Your task to perform on an android device: turn vacation reply on in the gmail app Image 0: 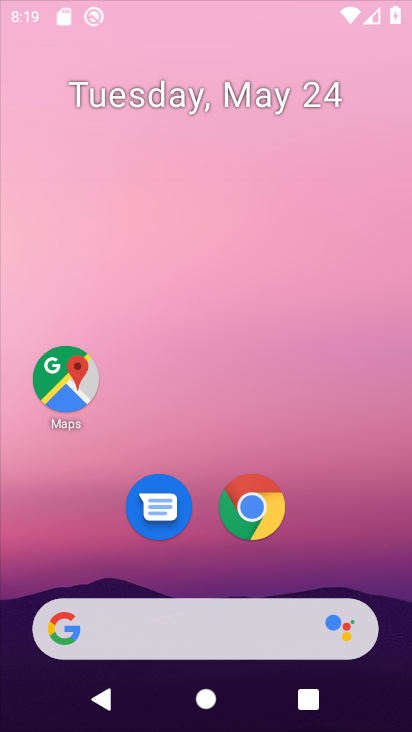
Step 0: click (227, 74)
Your task to perform on an android device: turn vacation reply on in the gmail app Image 1: 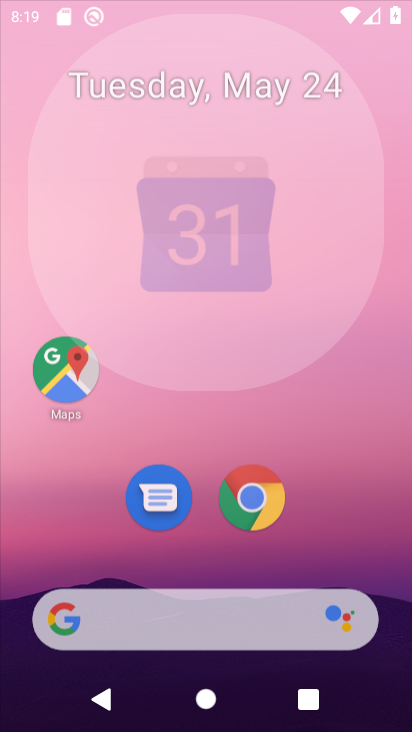
Step 1: drag from (223, 565) to (244, 90)
Your task to perform on an android device: turn vacation reply on in the gmail app Image 2: 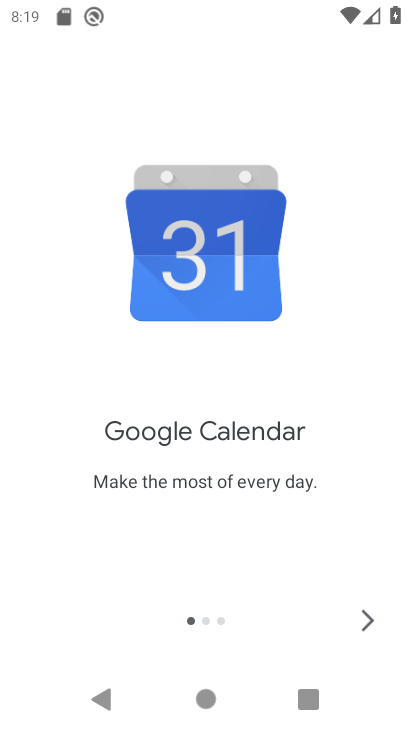
Step 2: press home button
Your task to perform on an android device: turn vacation reply on in the gmail app Image 3: 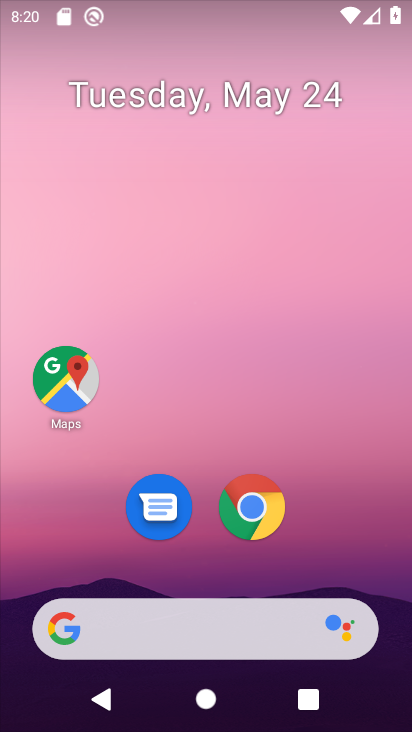
Step 3: drag from (174, 595) to (240, 107)
Your task to perform on an android device: turn vacation reply on in the gmail app Image 4: 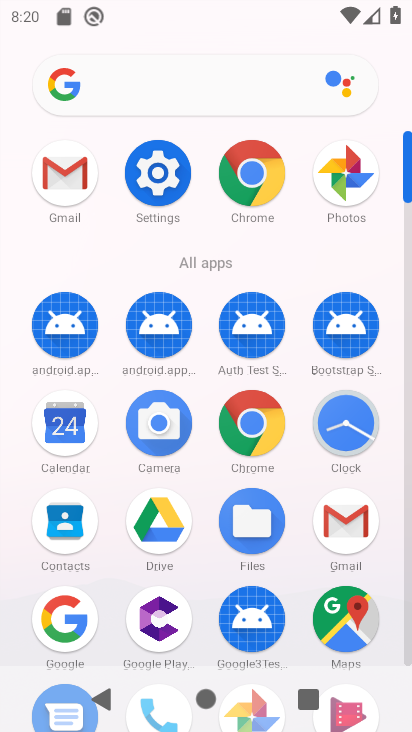
Step 4: click (350, 515)
Your task to perform on an android device: turn vacation reply on in the gmail app Image 5: 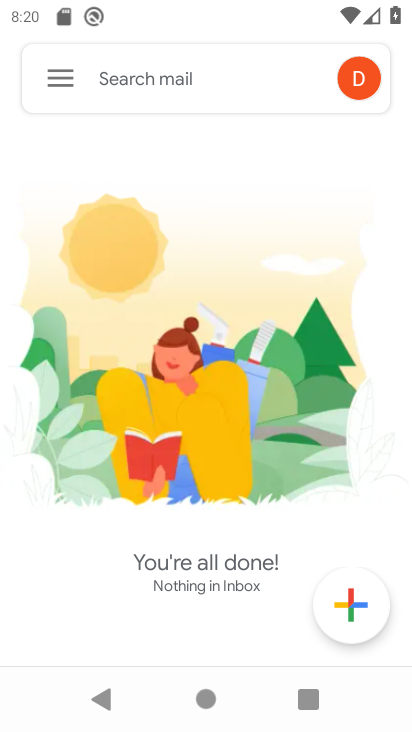
Step 5: click (35, 86)
Your task to perform on an android device: turn vacation reply on in the gmail app Image 6: 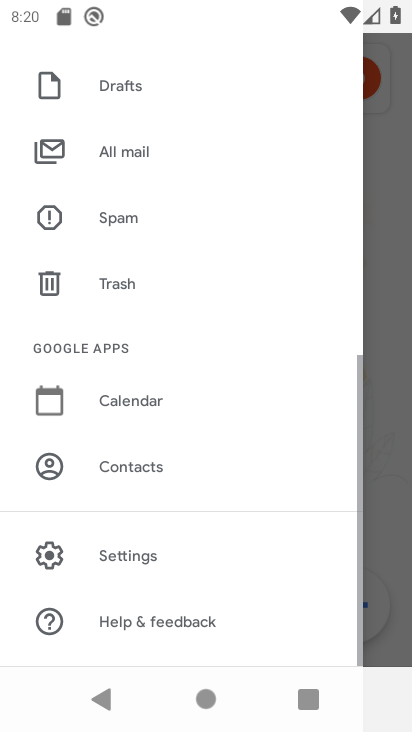
Step 6: drag from (212, 567) to (237, 85)
Your task to perform on an android device: turn vacation reply on in the gmail app Image 7: 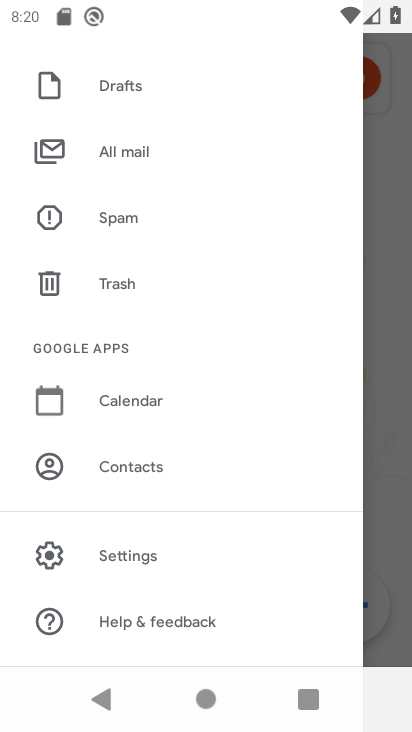
Step 7: click (148, 551)
Your task to perform on an android device: turn vacation reply on in the gmail app Image 8: 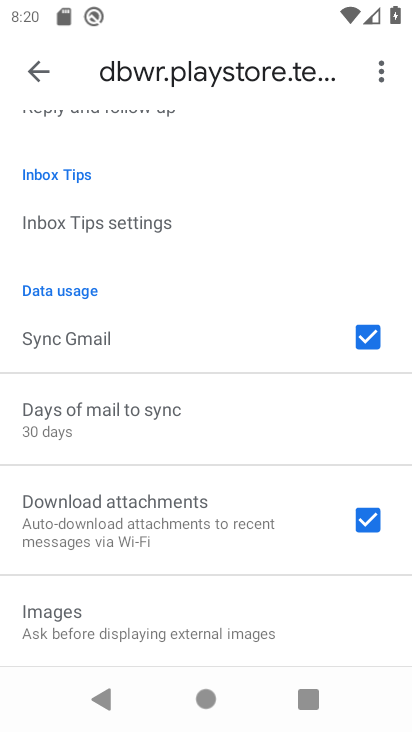
Step 8: drag from (109, 162) to (232, 666)
Your task to perform on an android device: turn vacation reply on in the gmail app Image 9: 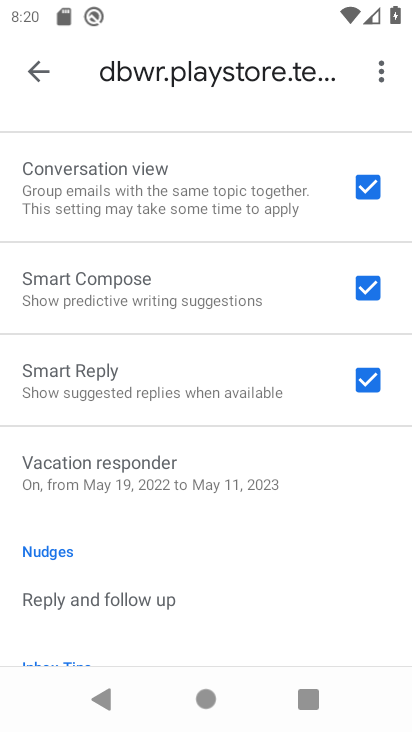
Step 9: click (231, 468)
Your task to perform on an android device: turn vacation reply on in the gmail app Image 10: 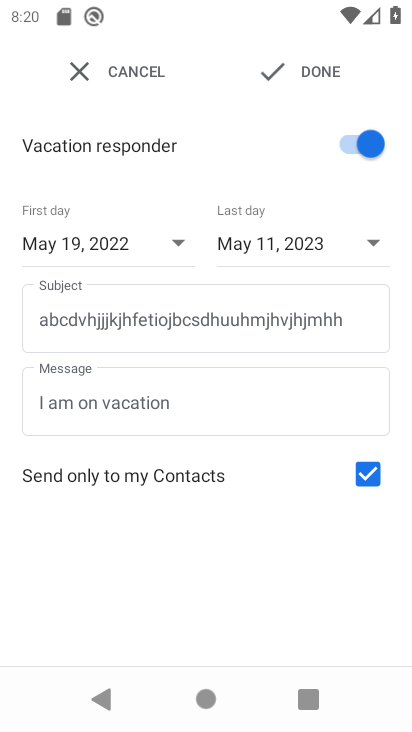
Step 10: click (292, 73)
Your task to perform on an android device: turn vacation reply on in the gmail app Image 11: 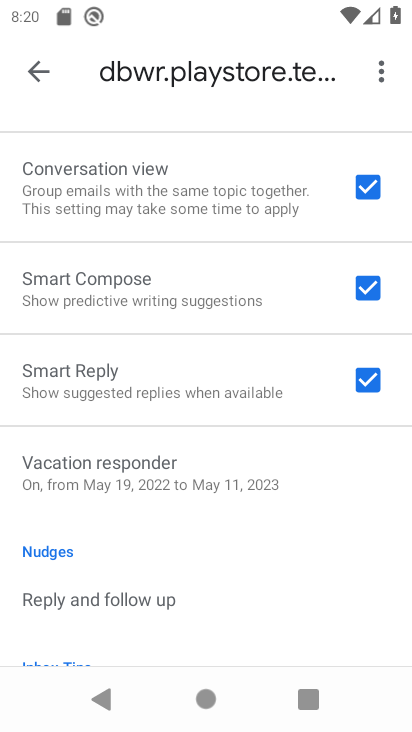
Step 11: drag from (262, 494) to (341, 35)
Your task to perform on an android device: turn vacation reply on in the gmail app Image 12: 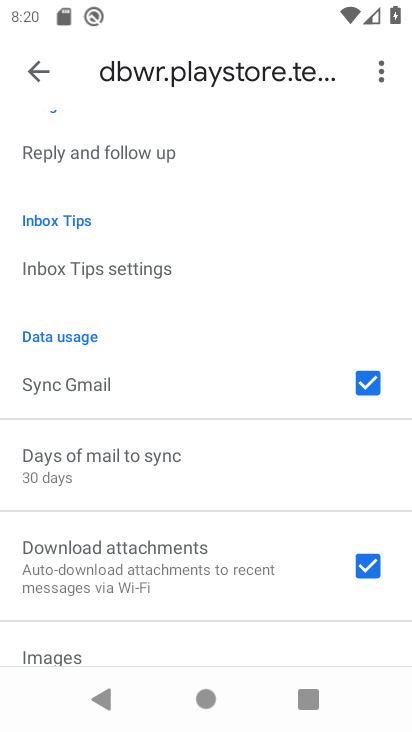
Step 12: drag from (307, 552) to (331, 229)
Your task to perform on an android device: turn vacation reply on in the gmail app Image 13: 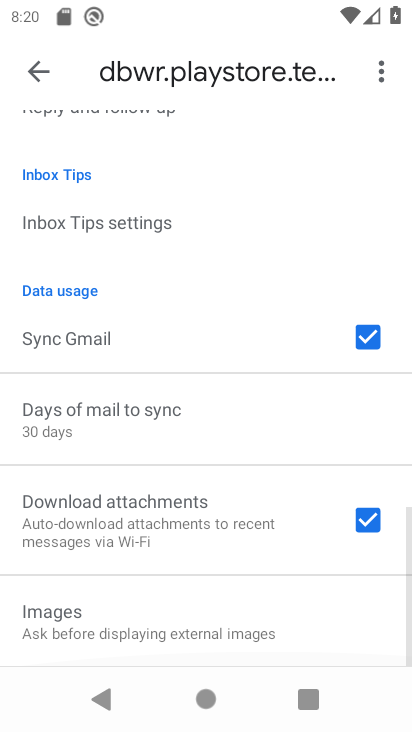
Step 13: drag from (327, 166) to (322, 566)
Your task to perform on an android device: turn vacation reply on in the gmail app Image 14: 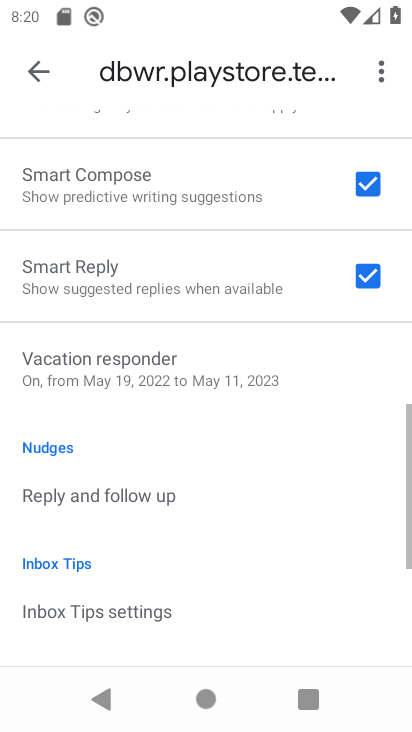
Step 14: drag from (322, 557) to (343, 167)
Your task to perform on an android device: turn vacation reply on in the gmail app Image 15: 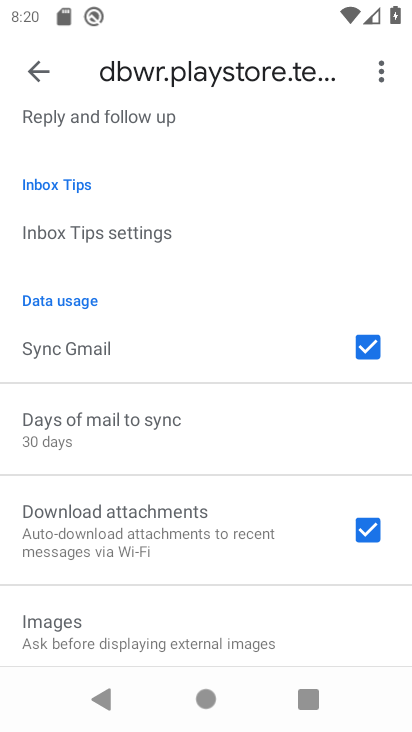
Step 15: drag from (238, 503) to (274, 257)
Your task to perform on an android device: turn vacation reply on in the gmail app Image 16: 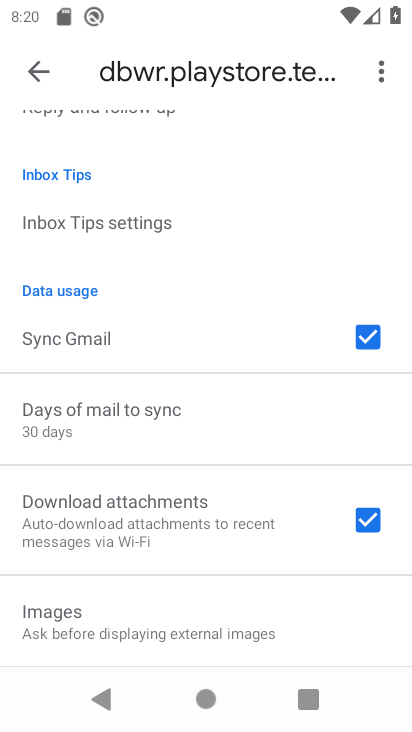
Step 16: drag from (272, 521) to (277, 137)
Your task to perform on an android device: turn vacation reply on in the gmail app Image 17: 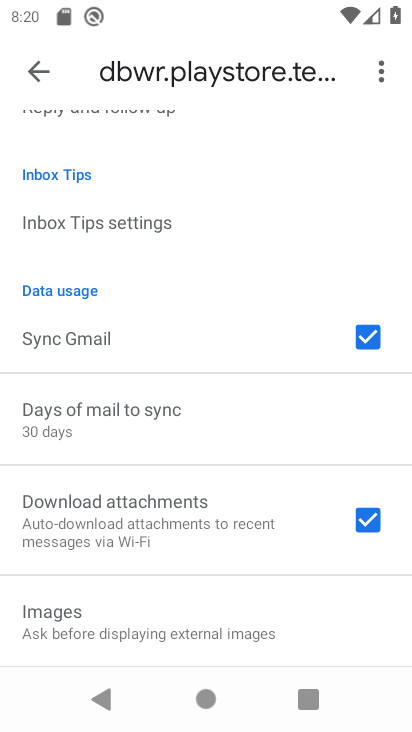
Step 17: drag from (233, 227) to (224, 641)
Your task to perform on an android device: turn vacation reply on in the gmail app Image 18: 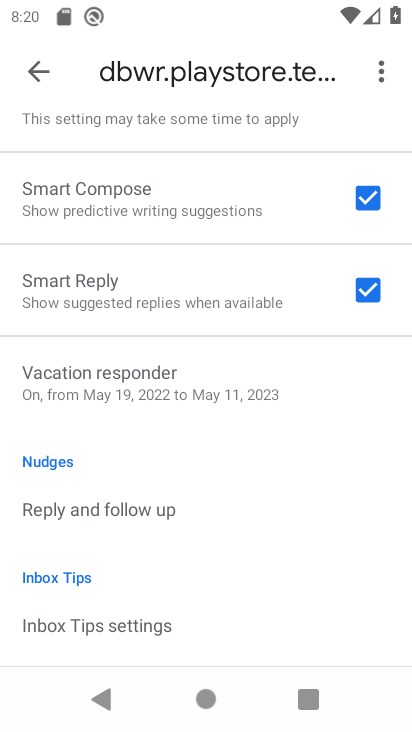
Step 18: drag from (237, 294) to (324, 638)
Your task to perform on an android device: turn vacation reply on in the gmail app Image 19: 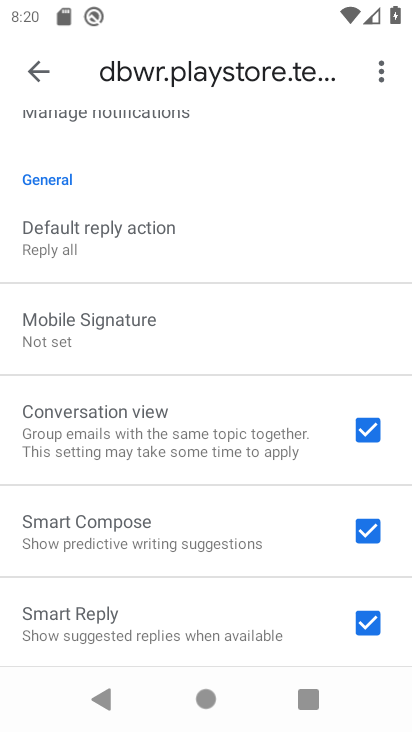
Step 19: drag from (244, 569) to (246, 212)
Your task to perform on an android device: turn vacation reply on in the gmail app Image 20: 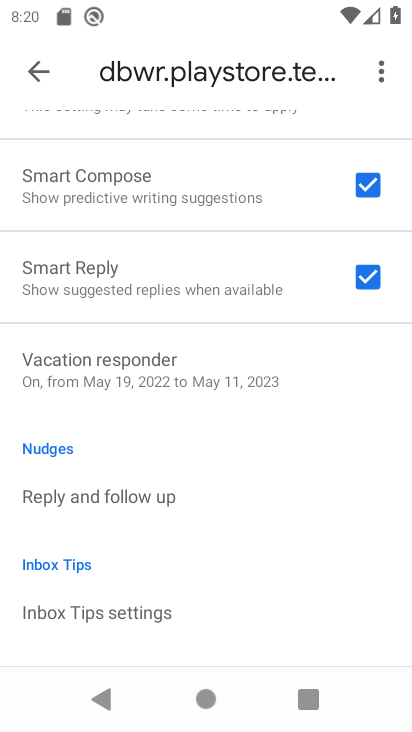
Step 20: drag from (184, 267) to (410, 728)
Your task to perform on an android device: turn vacation reply on in the gmail app Image 21: 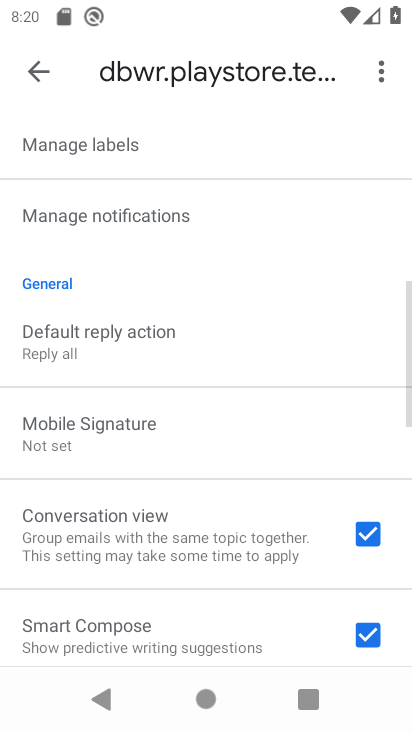
Step 21: drag from (301, 601) to (291, 204)
Your task to perform on an android device: turn vacation reply on in the gmail app Image 22: 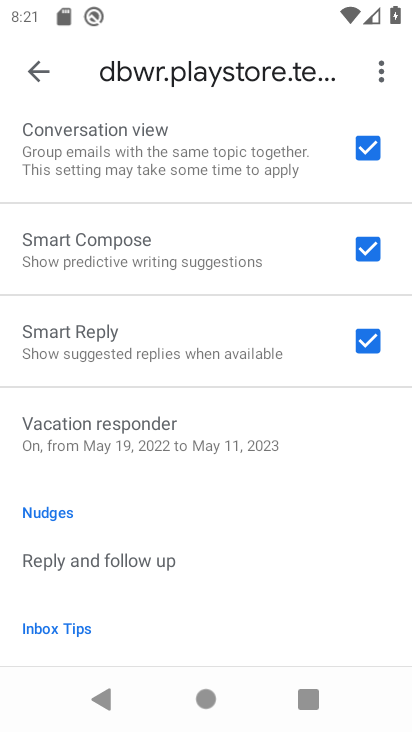
Step 22: drag from (225, 580) to (268, 289)
Your task to perform on an android device: turn vacation reply on in the gmail app Image 23: 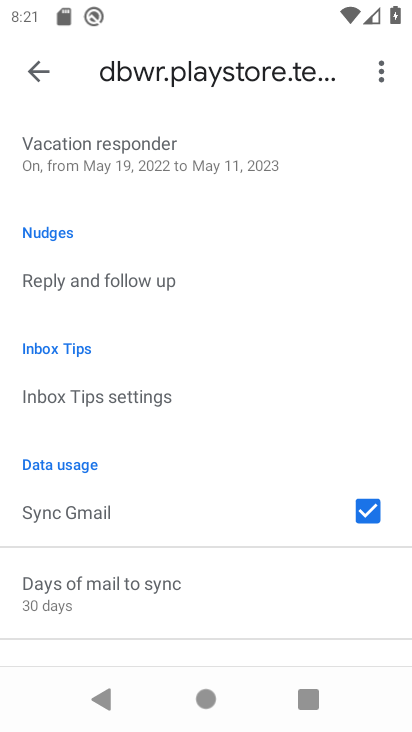
Step 23: click (132, 174)
Your task to perform on an android device: turn vacation reply on in the gmail app Image 24: 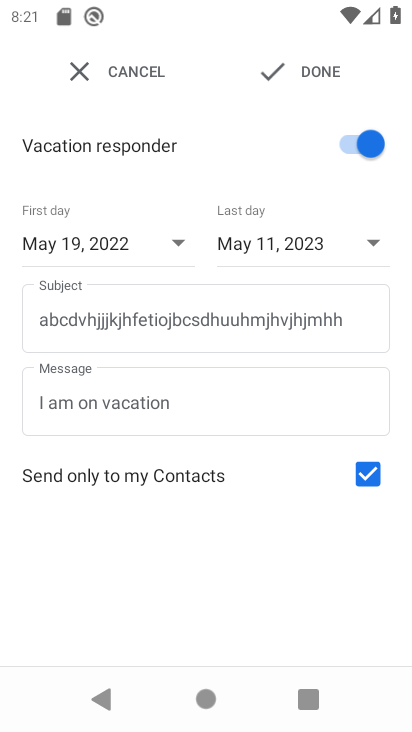
Step 24: click (289, 69)
Your task to perform on an android device: turn vacation reply on in the gmail app Image 25: 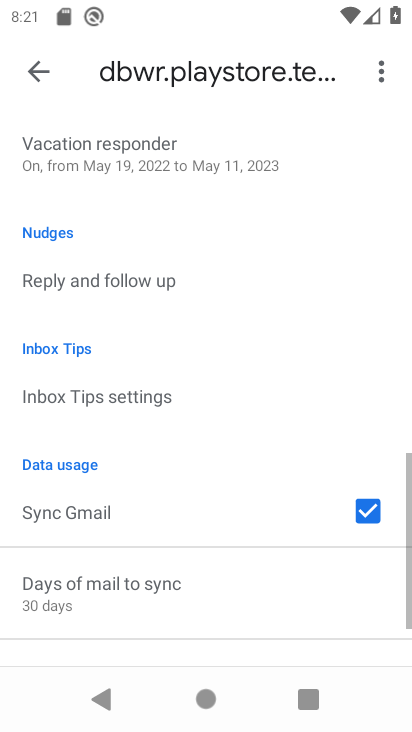
Step 25: task complete